Your task to perform on an android device: Open Google Maps and go to "Timeline" Image 0: 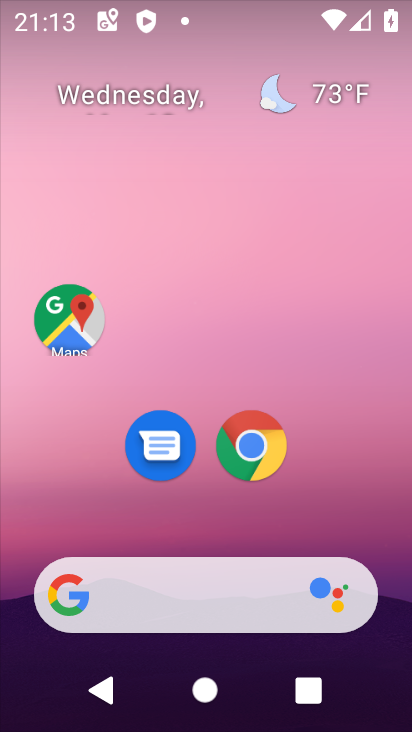
Step 0: drag from (316, 513) to (338, 268)
Your task to perform on an android device: Open Google Maps and go to "Timeline" Image 1: 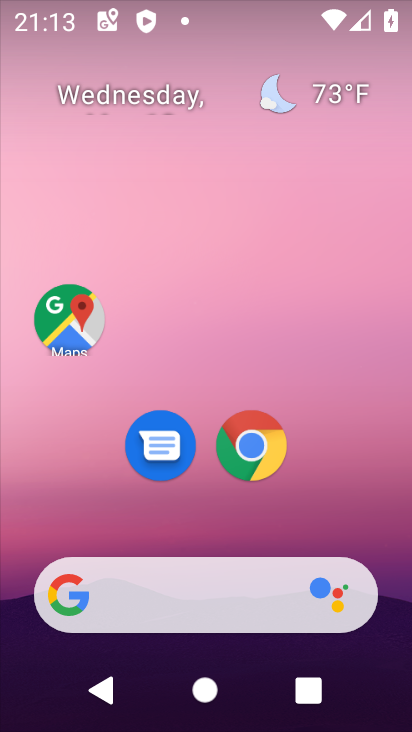
Step 1: click (65, 301)
Your task to perform on an android device: Open Google Maps and go to "Timeline" Image 2: 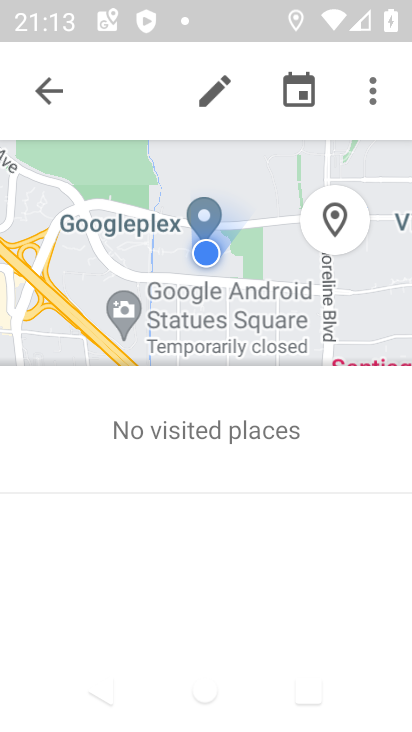
Step 2: click (48, 81)
Your task to perform on an android device: Open Google Maps and go to "Timeline" Image 3: 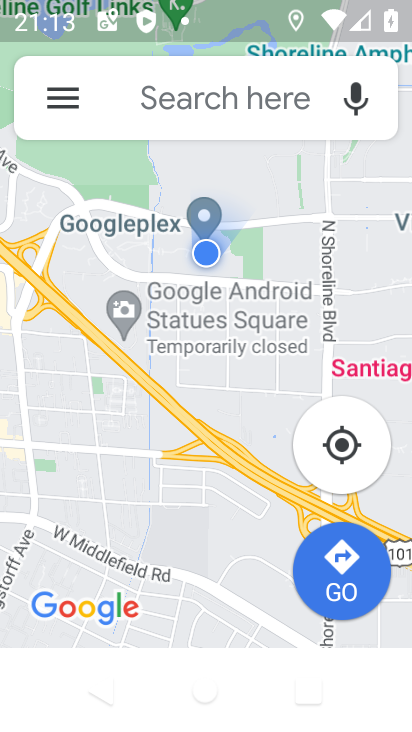
Step 3: click (56, 87)
Your task to perform on an android device: Open Google Maps and go to "Timeline" Image 4: 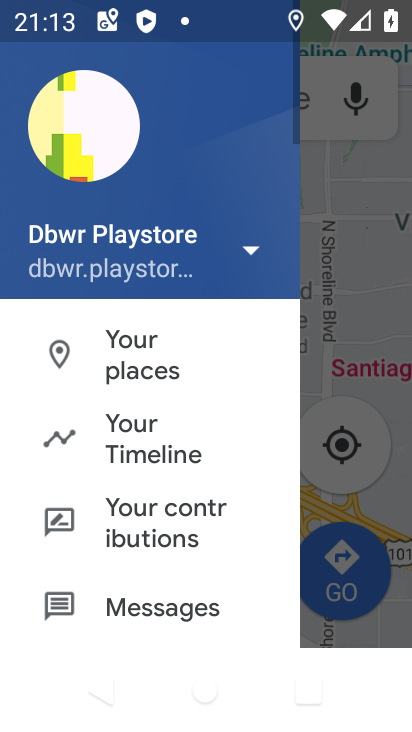
Step 4: click (129, 420)
Your task to perform on an android device: Open Google Maps and go to "Timeline" Image 5: 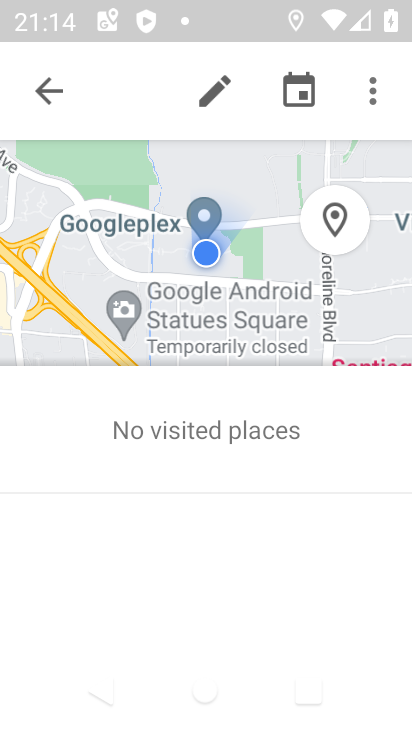
Step 5: task complete